Your task to perform on an android device: Go to privacy settings Image 0: 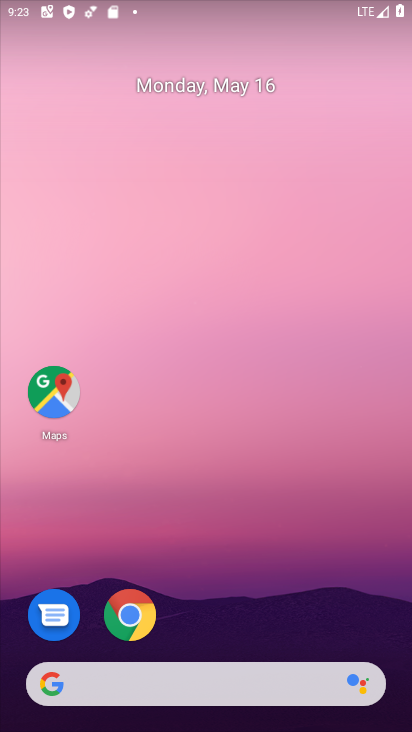
Step 0: drag from (276, 611) to (224, 173)
Your task to perform on an android device: Go to privacy settings Image 1: 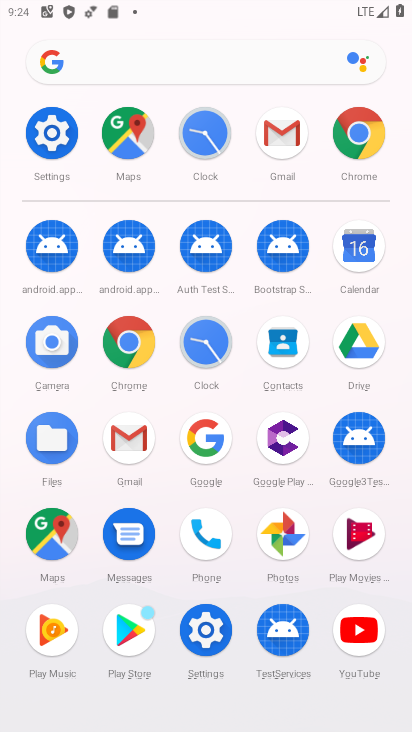
Step 1: click (55, 144)
Your task to perform on an android device: Go to privacy settings Image 2: 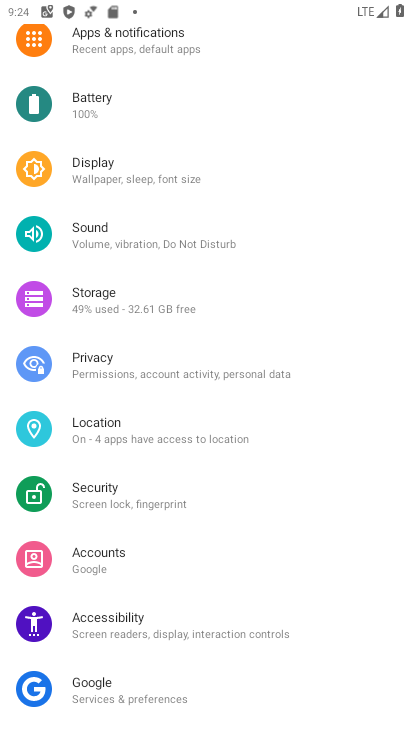
Step 2: click (152, 368)
Your task to perform on an android device: Go to privacy settings Image 3: 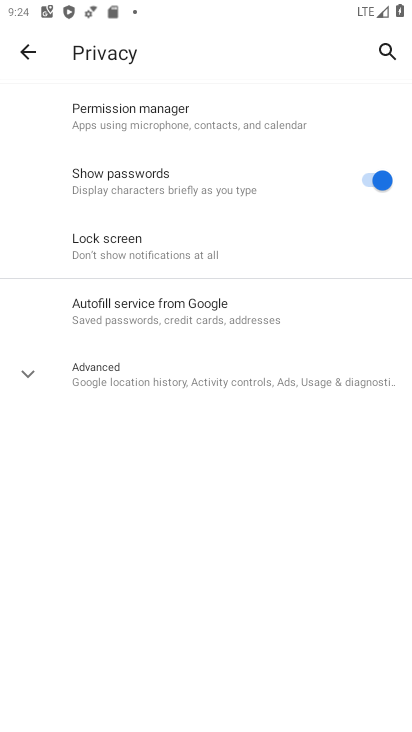
Step 3: task complete